Your task to perform on an android device: Open Android settings Image 0: 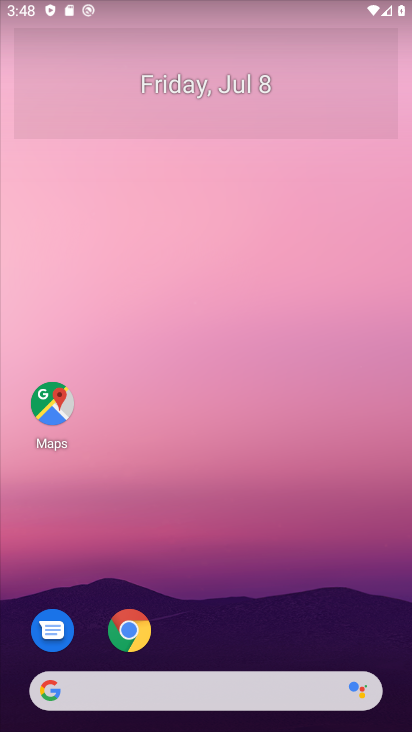
Step 0: drag from (68, 614) to (349, 9)
Your task to perform on an android device: Open Android settings Image 1: 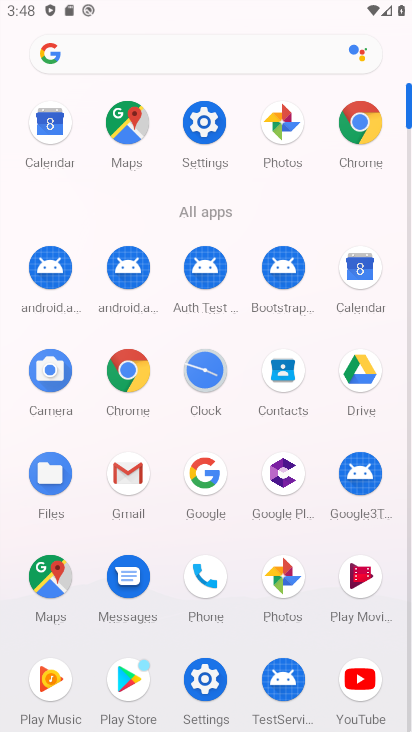
Step 1: click (217, 694)
Your task to perform on an android device: Open Android settings Image 2: 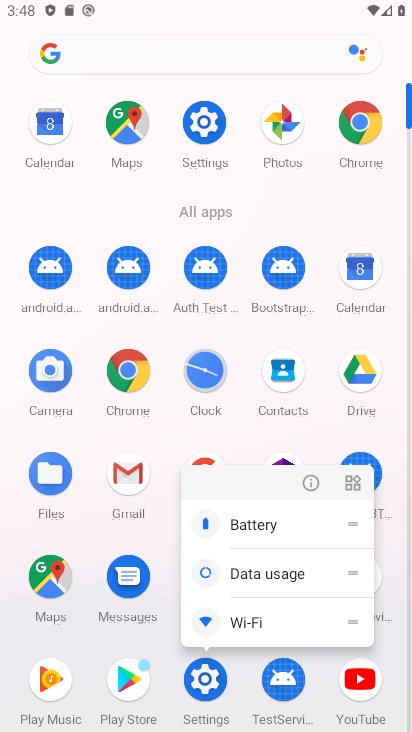
Step 2: click (217, 683)
Your task to perform on an android device: Open Android settings Image 3: 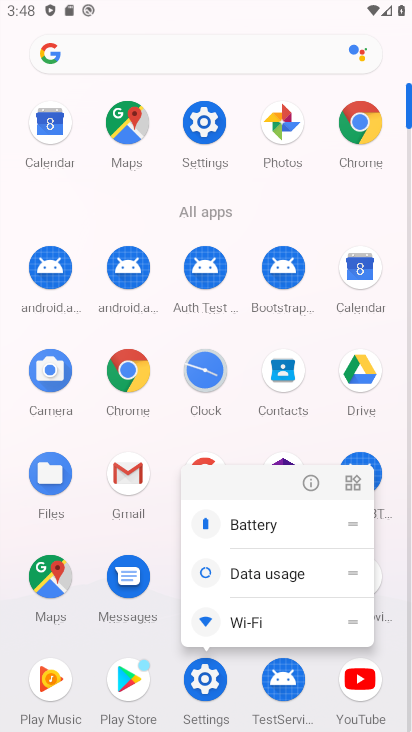
Step 3: click (208, 693)
Your task to perform on an android device: Open Android settings Image 4: 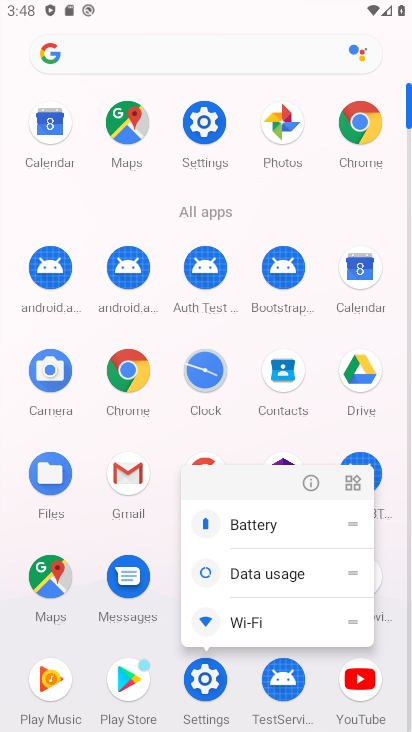
Step 4: task complete